Your task to perform on an android device: Install the Spotify app Image 0: 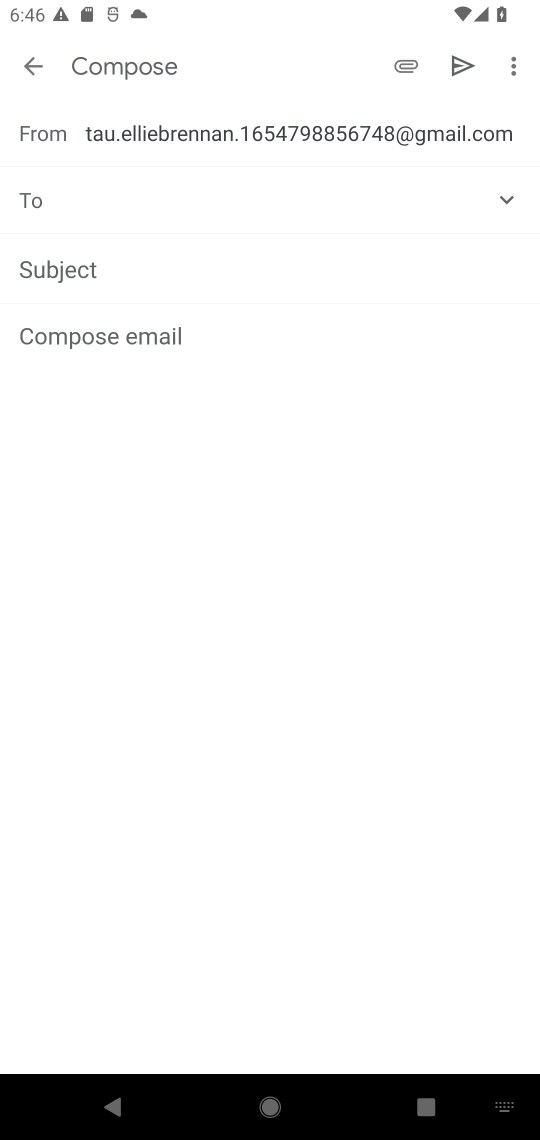
Step 0: press home button
Your task to perform on an android device: Install the Spotify app Image 1: 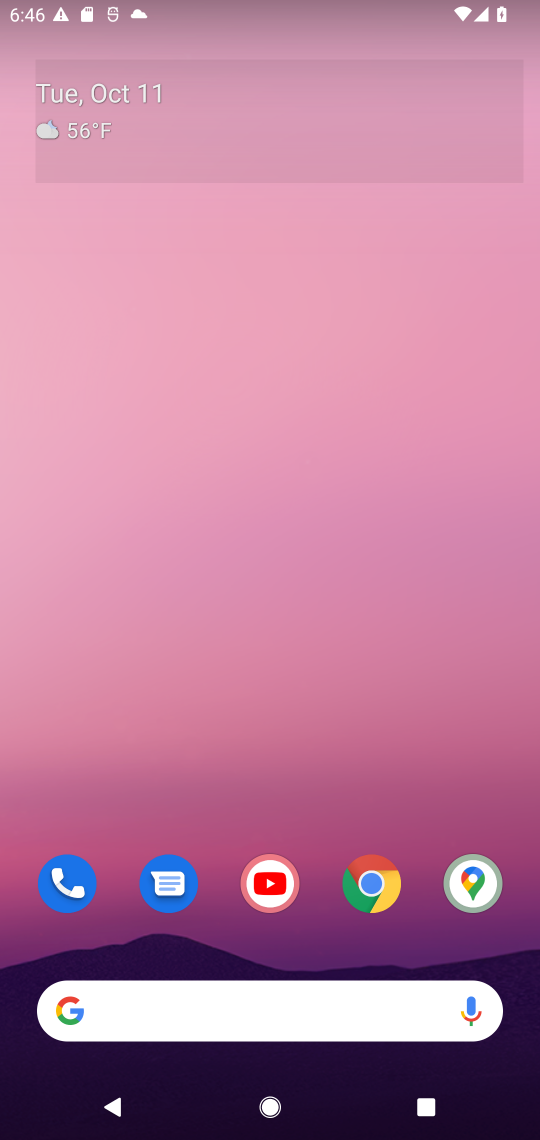
Step 1: drag from (326, 342) to (334, 144)
Your task to perform on an android device: Install the Spotify app Image 2: 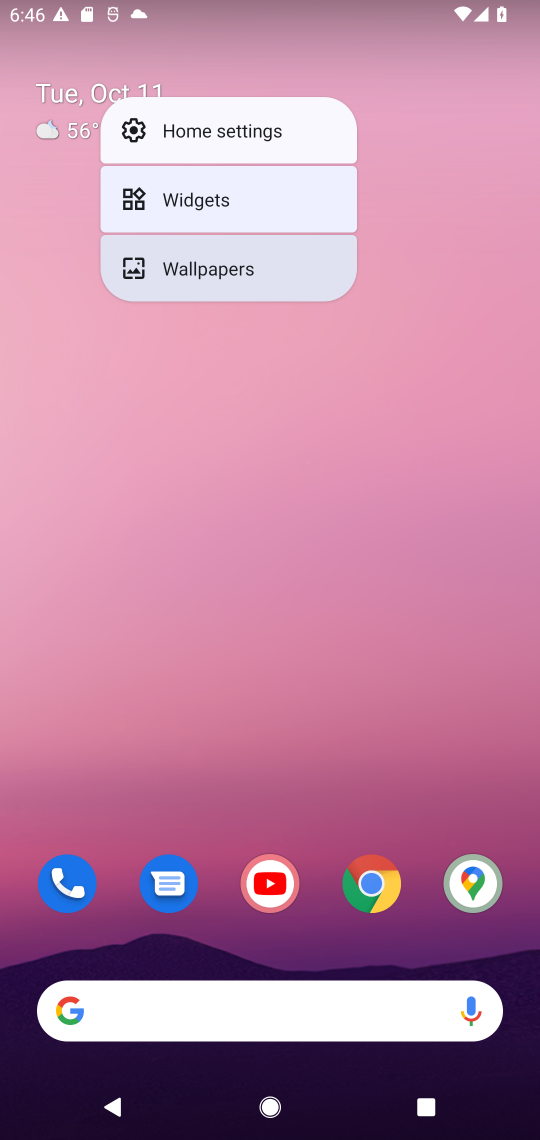
Step 2: click (283, 599)
Your task to perform on an android device: Install the Spotify app Image 3: 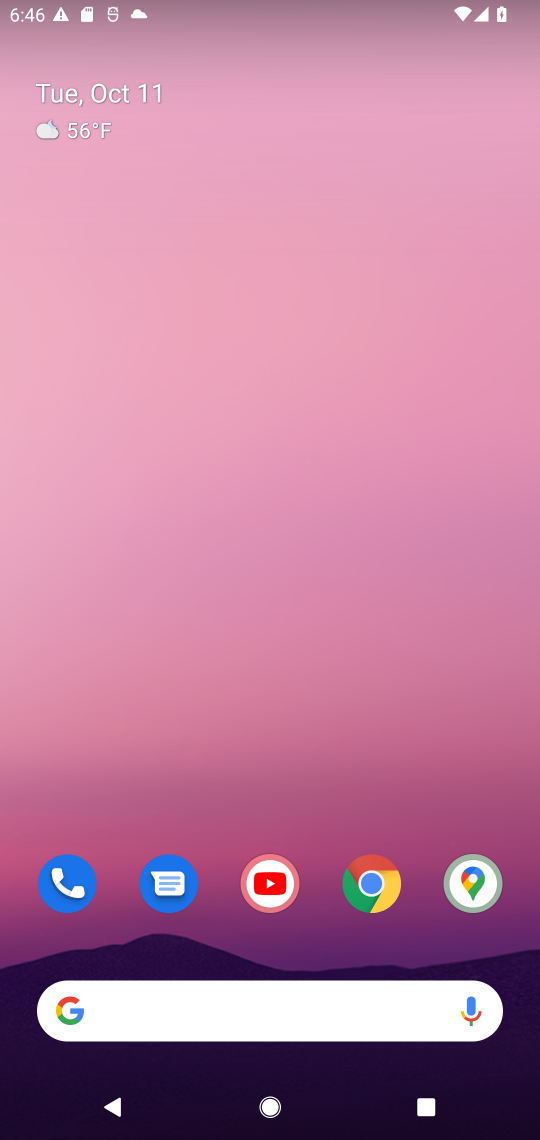
Step 3: drag from (313, 964) to (381, 187)
Your task to perform on an android device: Install the Spotify app Image 4: 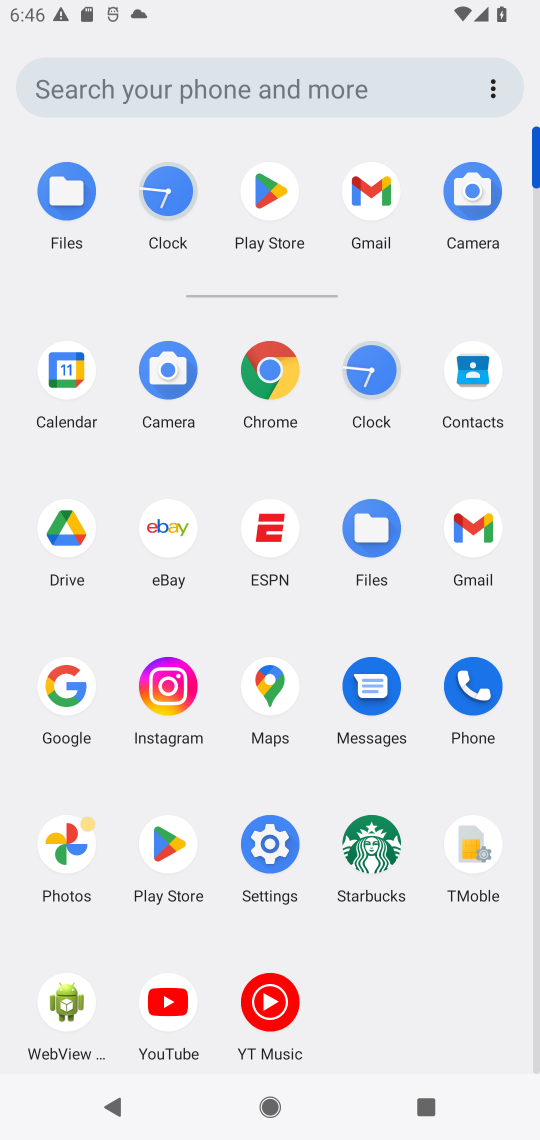
Step 4: click (170, 854)
Your task to perform on an android device: Install the Spotify app Image 5: 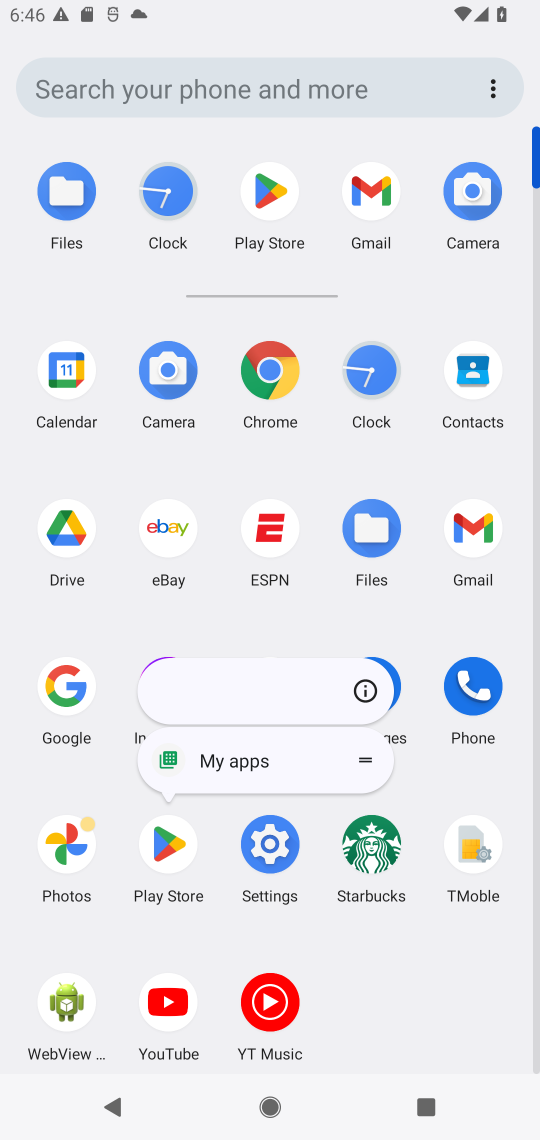
Step 5: click (168, 851)
Your task to perform on an android device: Install the Spotify app Image 6: 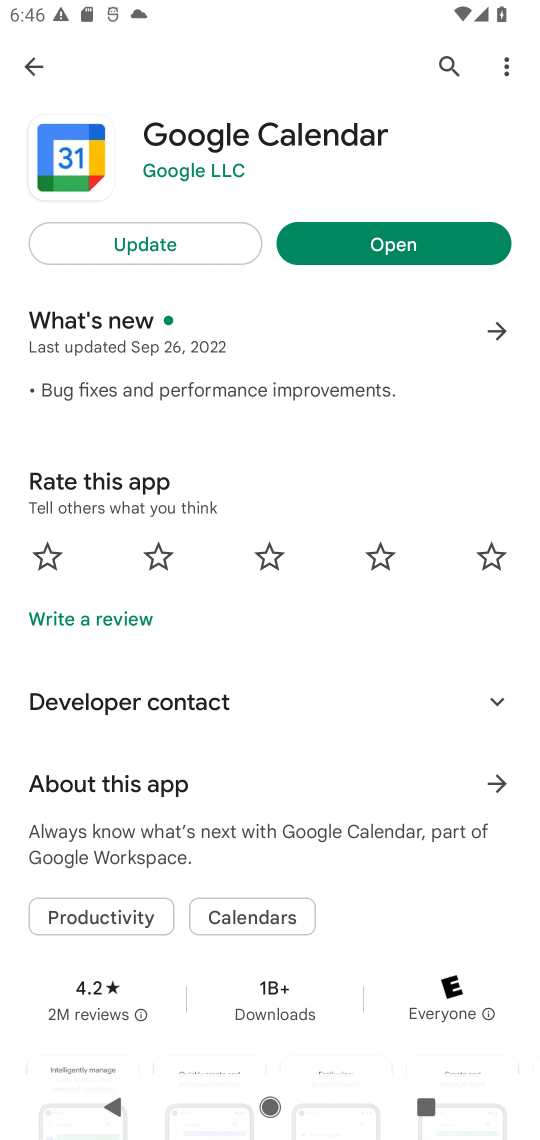
Step 6: click (444, 71)
Your task to perform on an android device: Install the Spotify app Image 7: 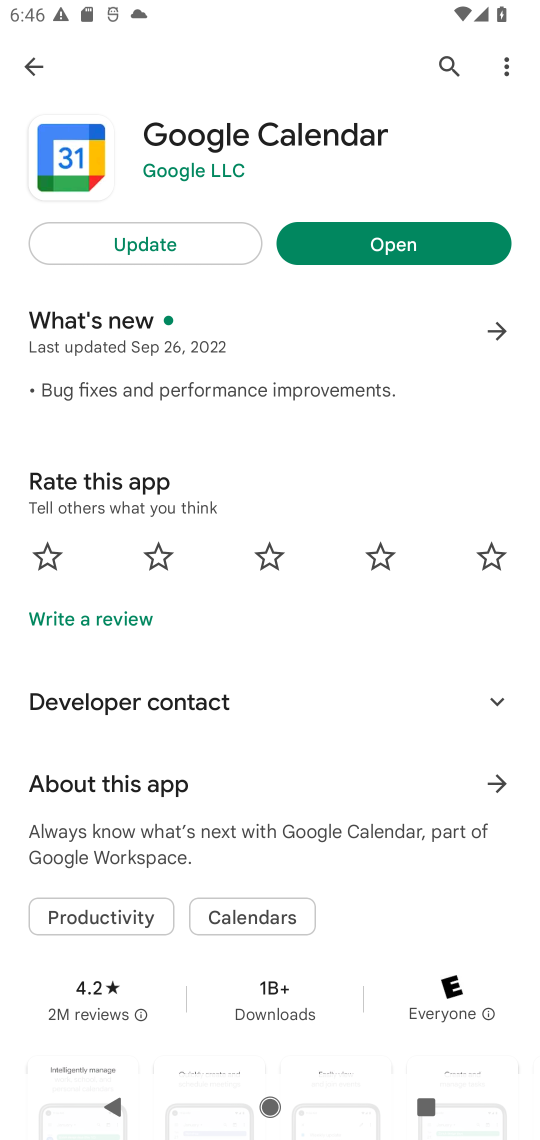
Step 7: type "Spotify"
Your task to perform on an android device: Install the Spotify app Image 8: 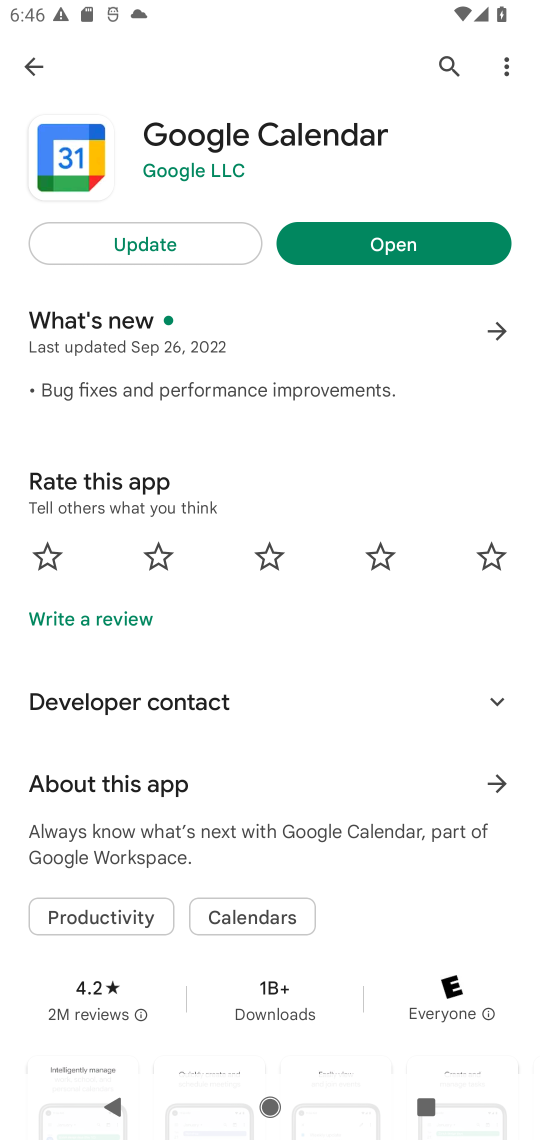
Step 8: click (443, 65)
Your task to perform on an android device: Install the Spotify app Image 9: 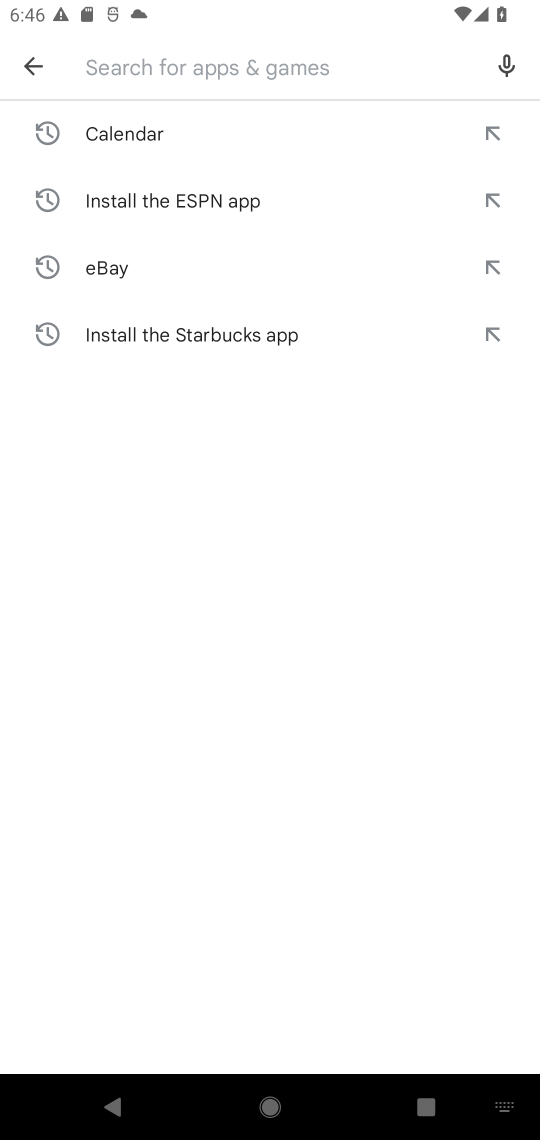
Step 9: type "Spotify"
Your task to perform on an android device: Install the Spotify app Image 10: 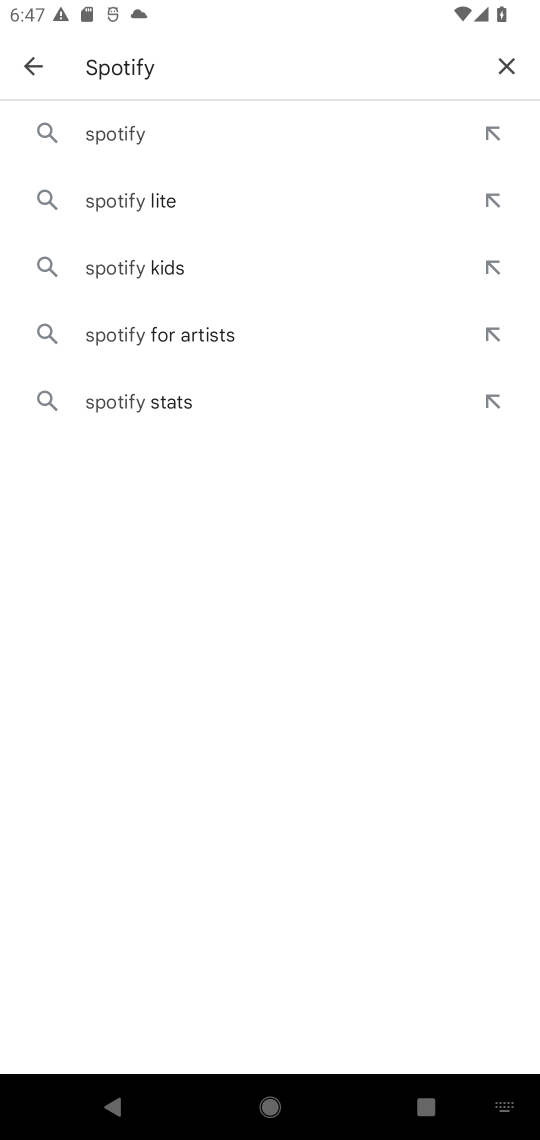
Step 10: press enter
Your task to perform on an android device: Install the Spotify app Image 11: 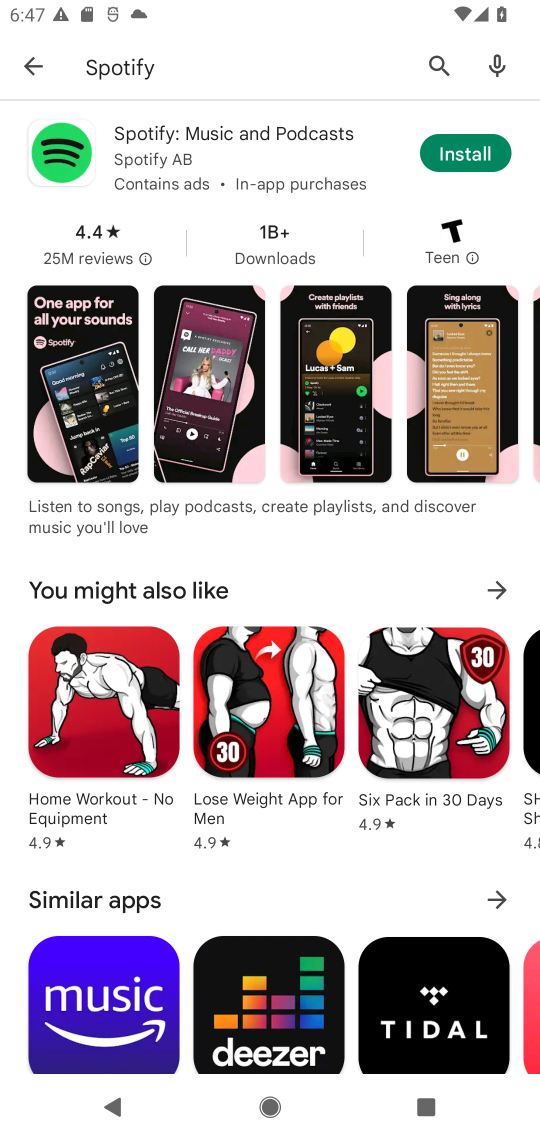
Step 11: click (454, 161)
Your task to perform on an android device: Install the Spotify app Image 12: 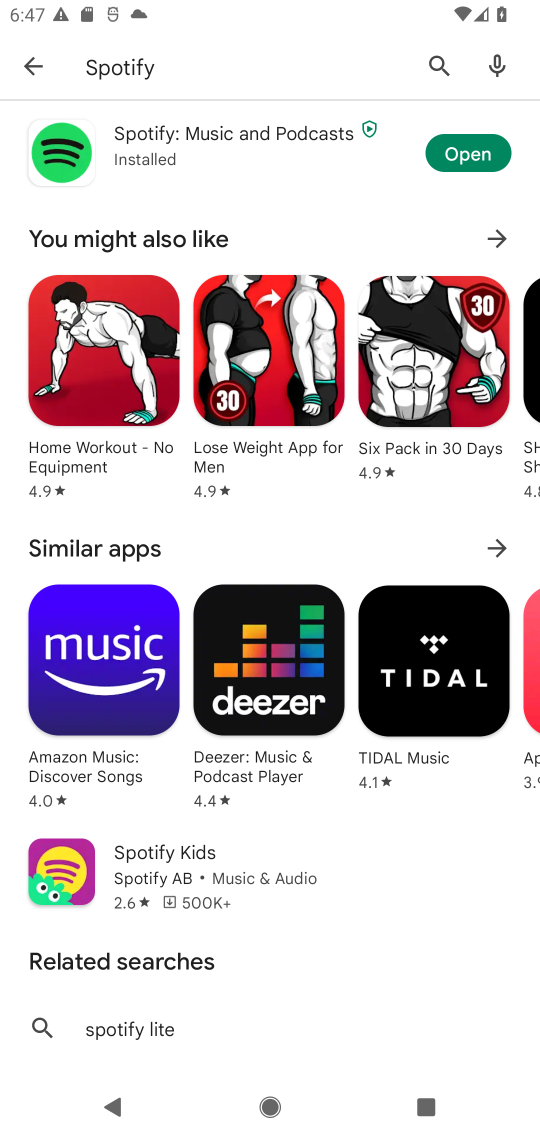
Step 12: task complete